Your task to perform on an android device: add a contact in the contacts app Image 0: 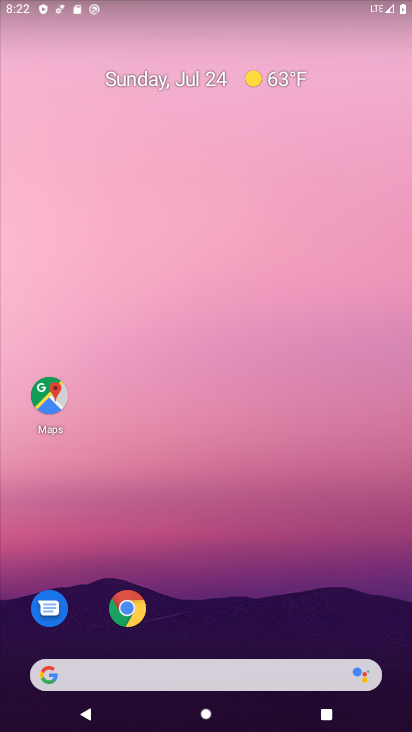
Step 0: drag from (210, 636) to (118, 51)
Your task to perform on an android device: add a contact in the contacts app Image 1: 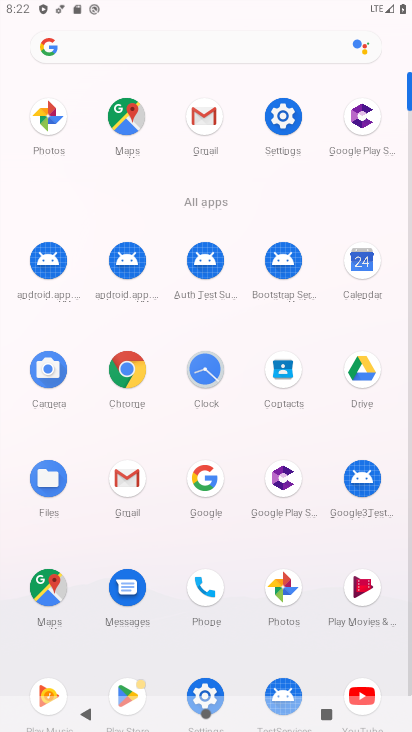
Step 1: click (281, 369)
Your task to perform on an android device: add a contact in the contacts app Image 2: 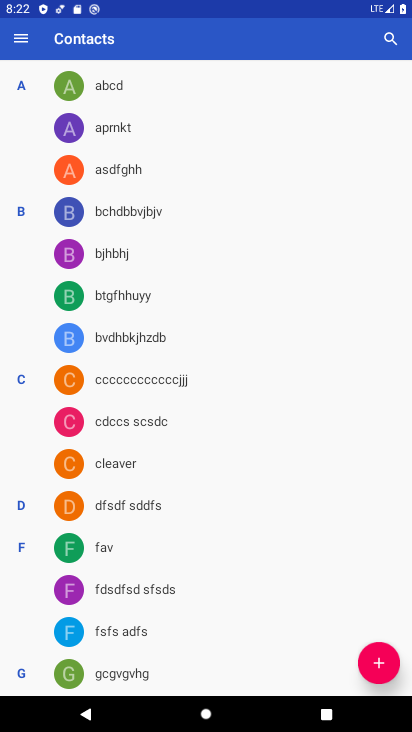
Step 2: click (384, 660)
Your task to perform on an android device: add a contact in the contacts app Image 3: 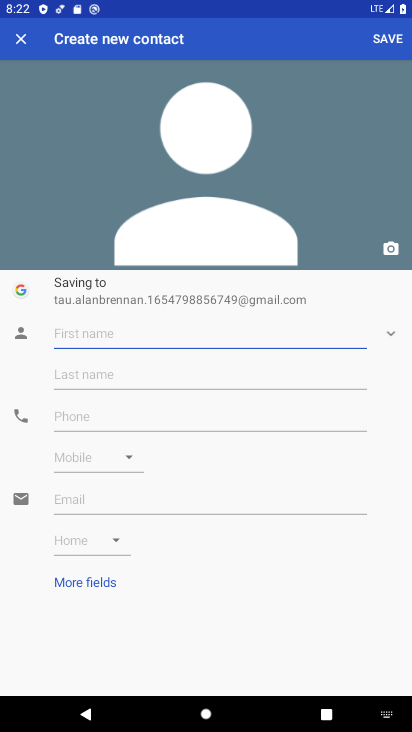
Step 3: type "nngyfgvy"
Your task to perform on an android device: add a contact in the contacts app Image 4: 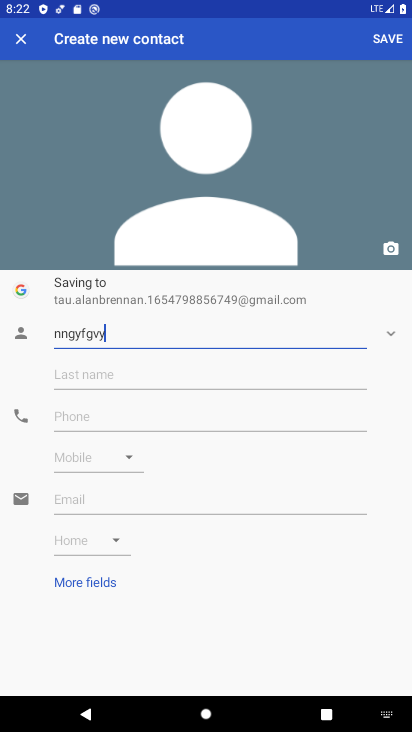
Step 4: click (376, 35)
Your task to perform on an android device: add a contact in the contacts app Image 5: 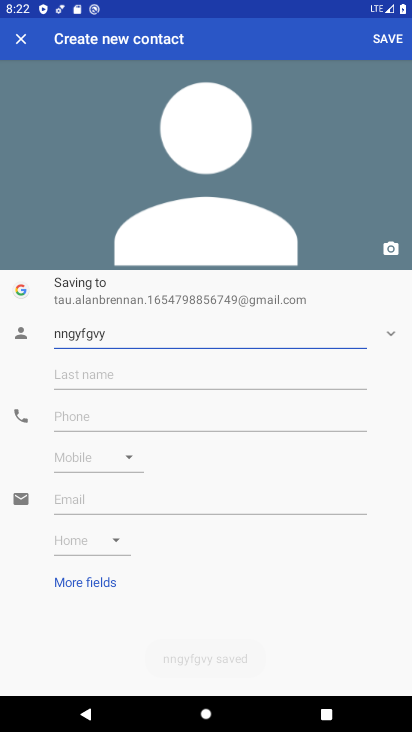
Step 5: task complete